Your task to perform on an android device: Go to eBay Image 0: 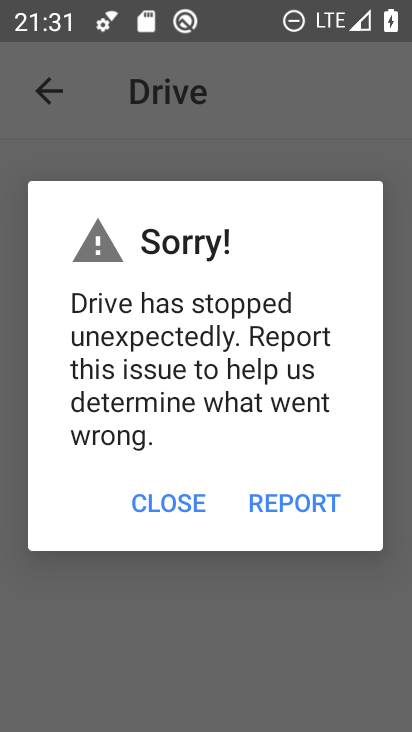
Step 0: press home button
Your task to perform on an android device: Go to eBay Image 1: 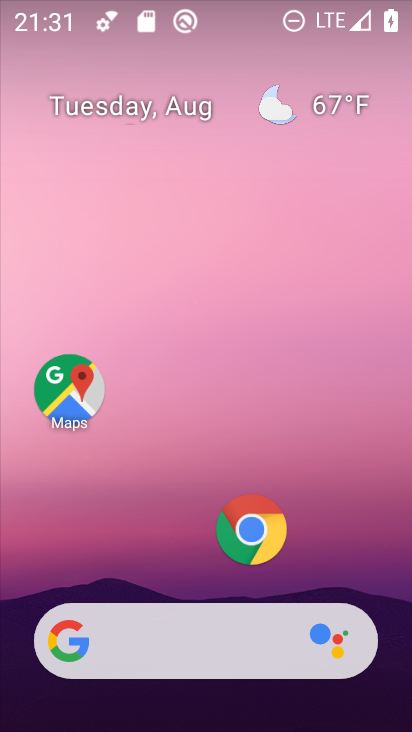
Step 1: click (179, 650)
Your task to perform on an android device: Go to eBay Image 2: 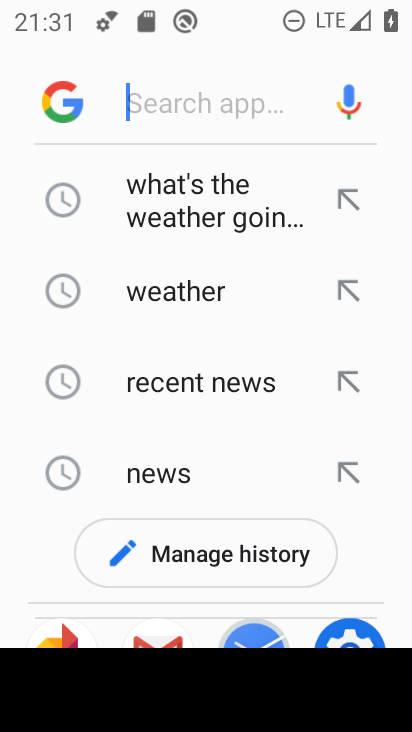
Step 2: click (191, 97)
Your task to perform on an android device: Go to eBay Image 3: 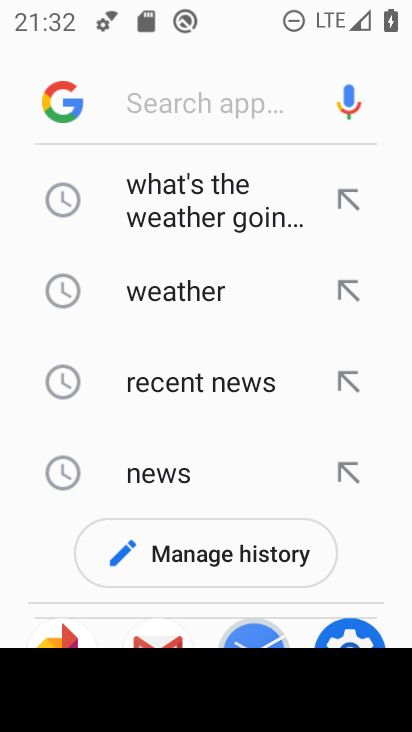
Step 3: type "eBay"
Your task to perform on an android device: Go to eBay Image 4: 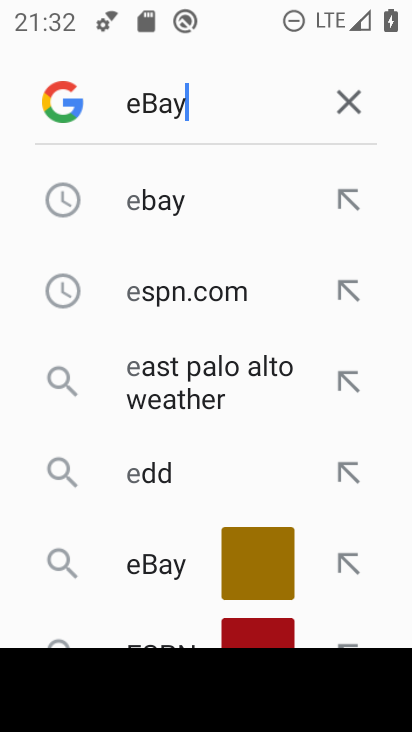
Step 4: type ""
Your task to perform on an android device: Go to eBay Image 5: 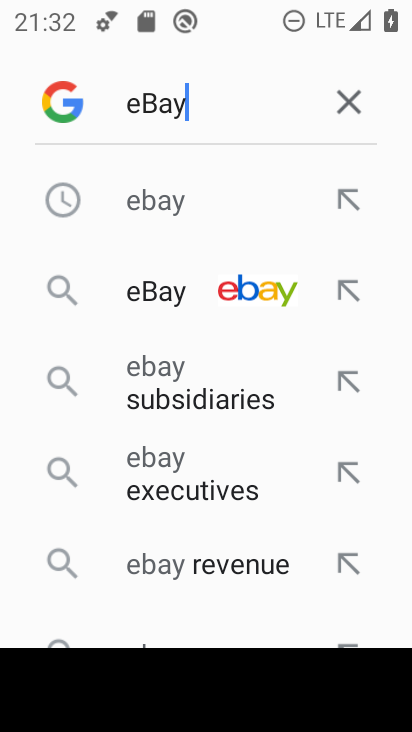
Step 5: click (161, 279)
Your task to perform on an android device: Go to eBay Image 6: 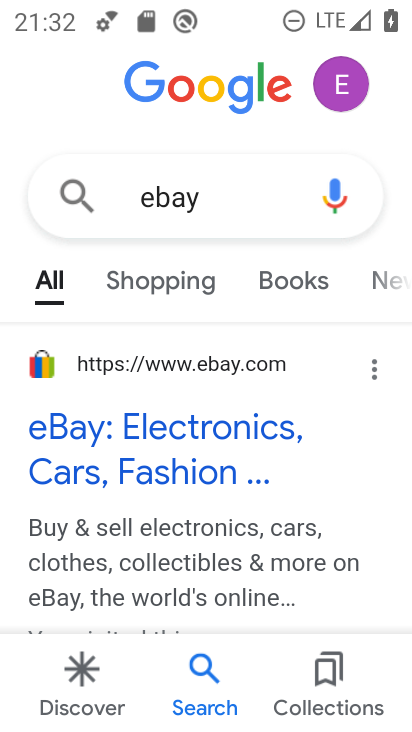
Step 6: click (139, 445)
Your task to perform on an android device: Go to eBay Image 7: 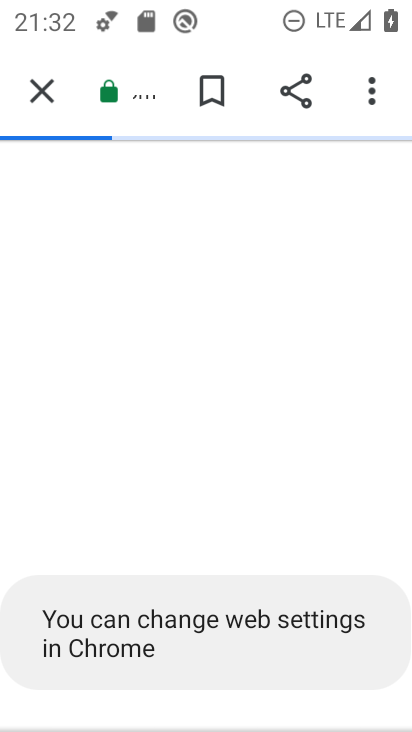
Step 7: task complete